Your task to perform on an android device: Search for seafood restaurants on Google Maps Image 0: 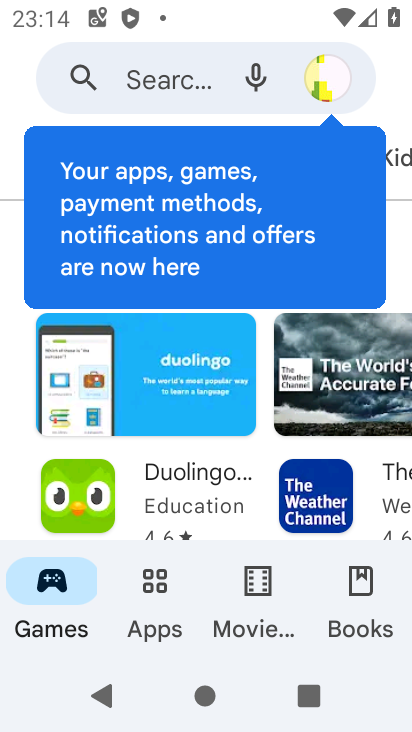
Step 0: press home button
Your task to perform on an android device: Search for seafood restaurants on Google Maps Image 1: 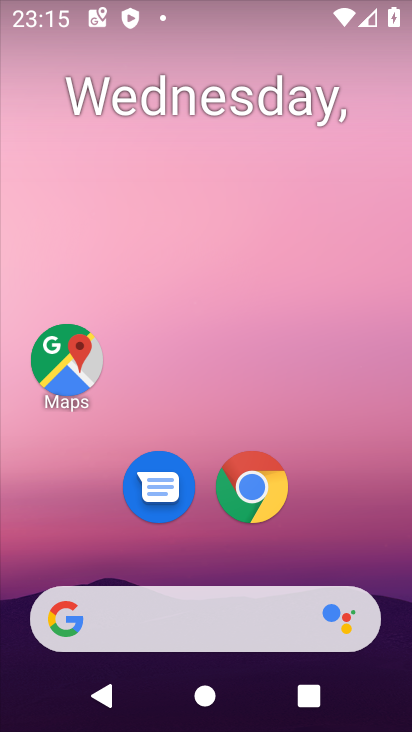
Step 1: click (75, 364)
Your task to perform on an android device: Search for seafood restaurants on Google Maps Image 2: 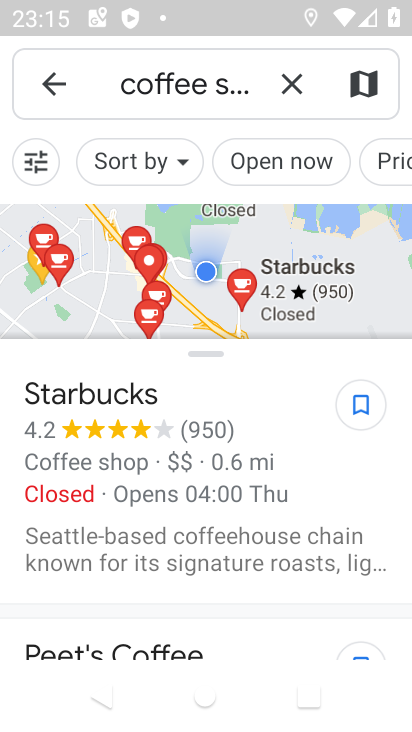
Step 2: click (285, 89)
Your task to perform on an android device: Search for seafood restaurants on Google Maps Image 3: 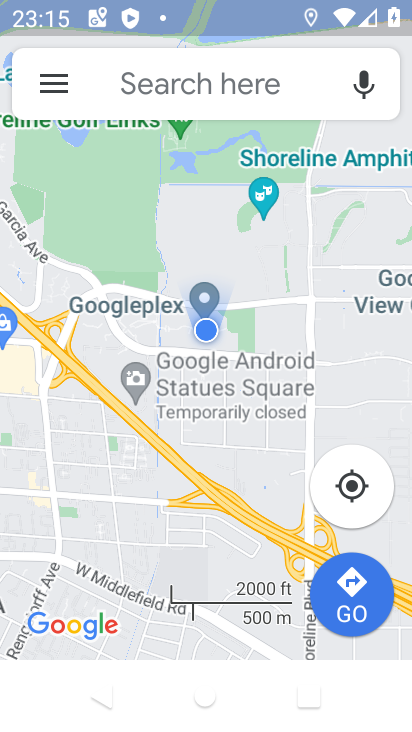
Step 3: click (120, 84)
Your task to perform on an android device: Search for seafood restaurants on Google Maps Image 4: 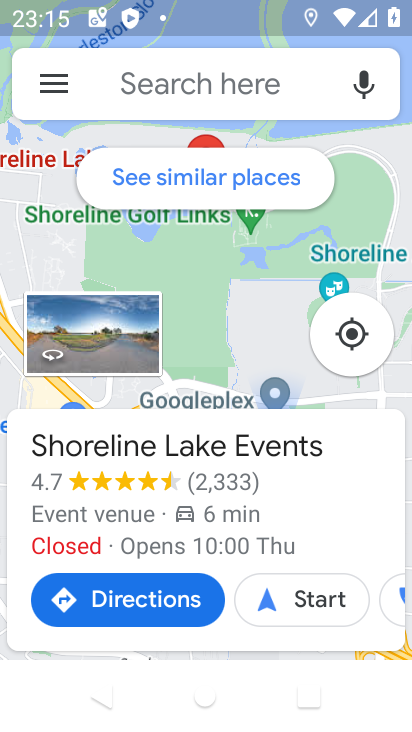
Step 4: click (140, 90)
Your task to perform on an android device: Search for seafood restaurants on Google Maps Image 5: 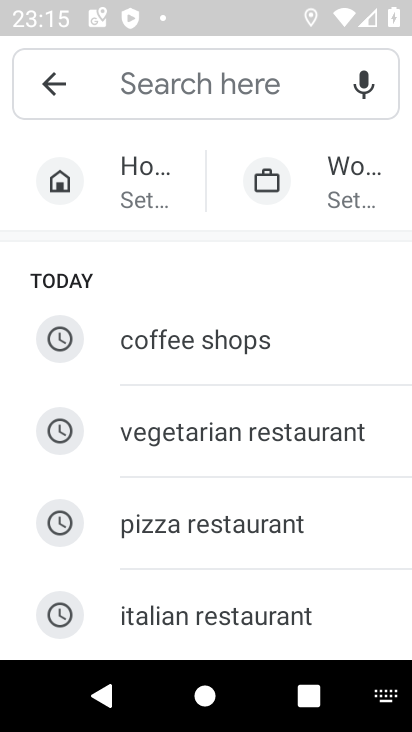
Step 5: type "seafood restaurant"
Your task to perform on an android device: Search for seafood restaurants on Google Maps Image 6: 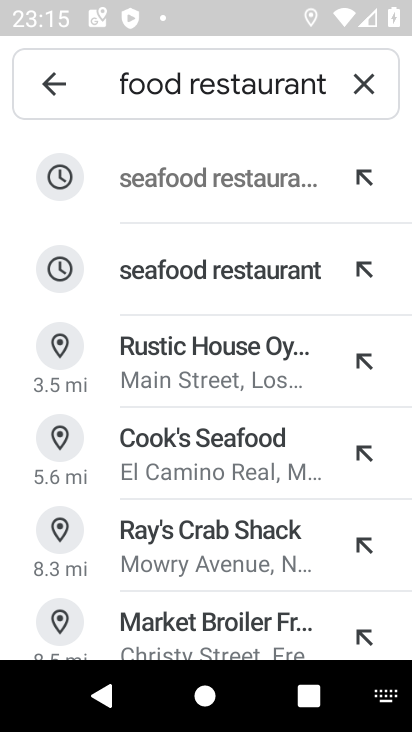
Step 6: click (206, 184)
Your task to perform on an android device: Search for seafood restaurants on Google Maps Image 7: 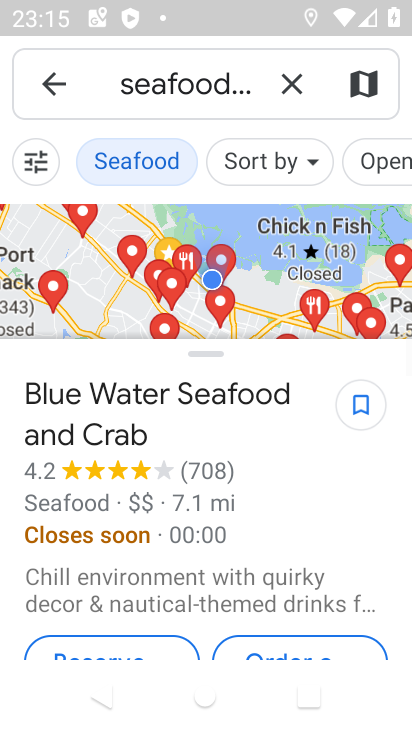
Step 7: task complete